Your task to perform on an android device: Open the Play Movies app and select the watchlist tab. Image 0: 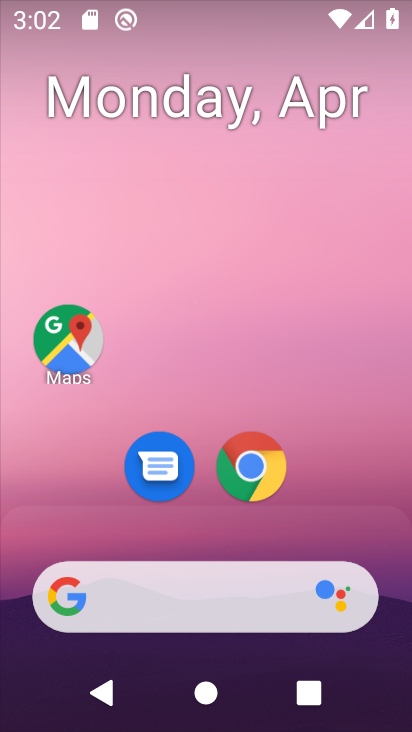
Step 0: drag from (301, 546) to (312, 98)
Your task to perform on an android device: Open the Play Movies app and select the watchlist tab. Image 1: 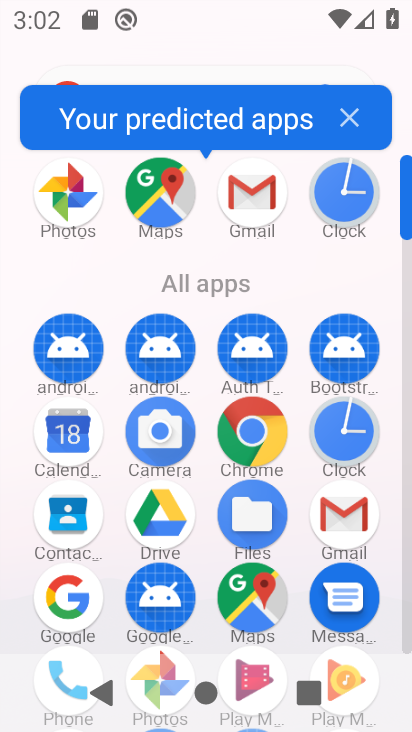
Step 1: drag from (364, 534) to (345, 238)
Your task to perform on an android device: Open the Play Movies app and select the watchlist tab. Image 2: 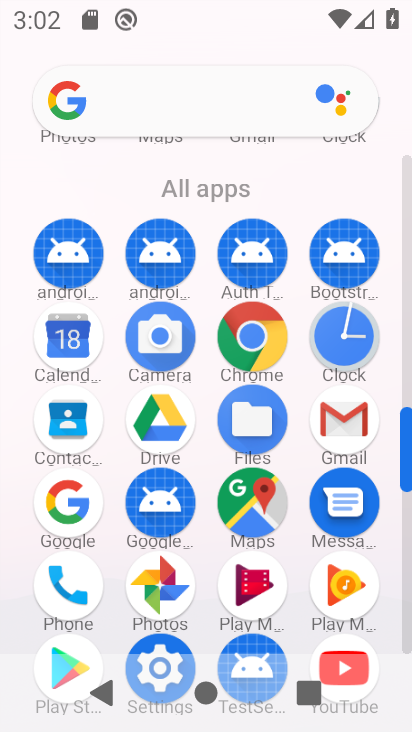
Step 2: click (258, 586)
Your task to perform on an android device: Open the Play Movies app and select the watchlist tab. Image 3: 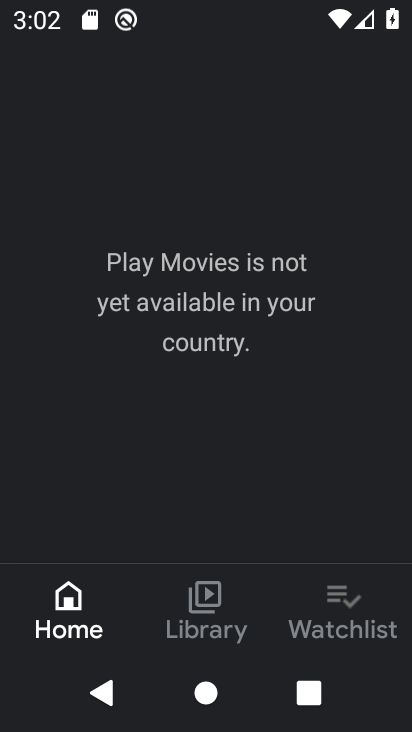
Step 3: click (362, 634)
Your task to perform on an android device: Open the Play Movies app and select the watchlist tab. Image 4: 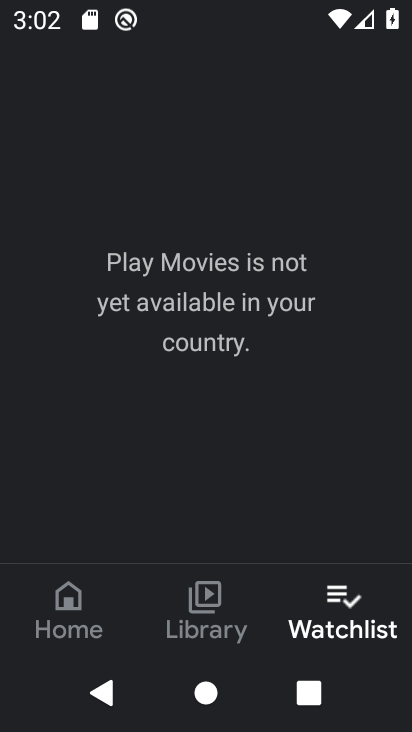
Step 4: task complete